Your task to perform on an android device: turn on bluetooth scan Image 0: 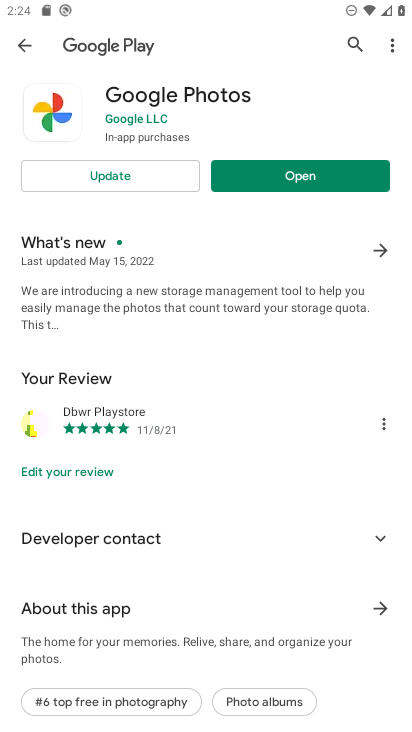
Step 0: press home button
Your task to perform on an android device: turn on bluetooth scan Image 1: 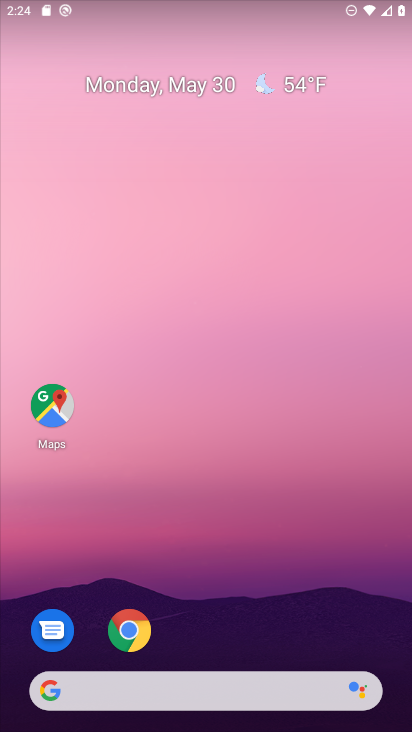
Step 1: drag from (131, 696) to (336, 86)
Your task to perform on an android device: turn on bluetooth scan Image 2: 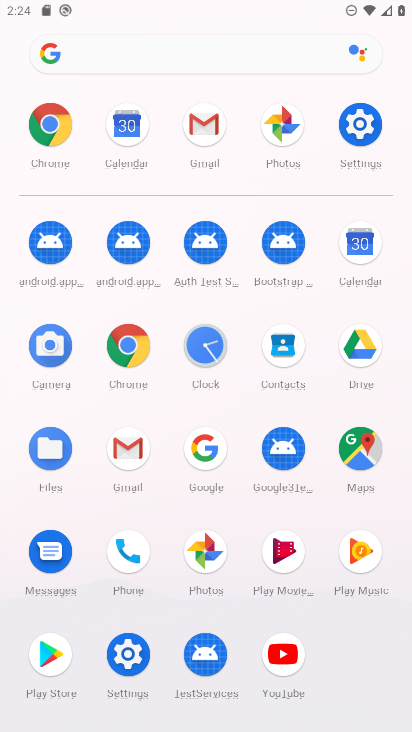
Step 2: click (368, 136)
Your task to perform on an android device: turn on bluetooth scan Image 3: 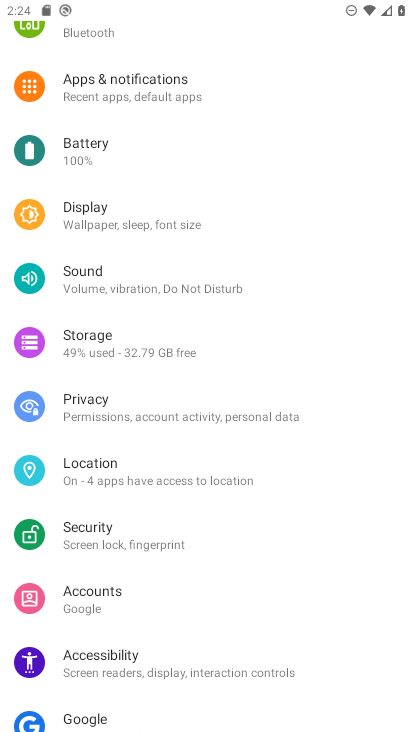
Step 3: click (138, 474)
Your task to perform on an android device: turn on bluetooth scan Image 4: 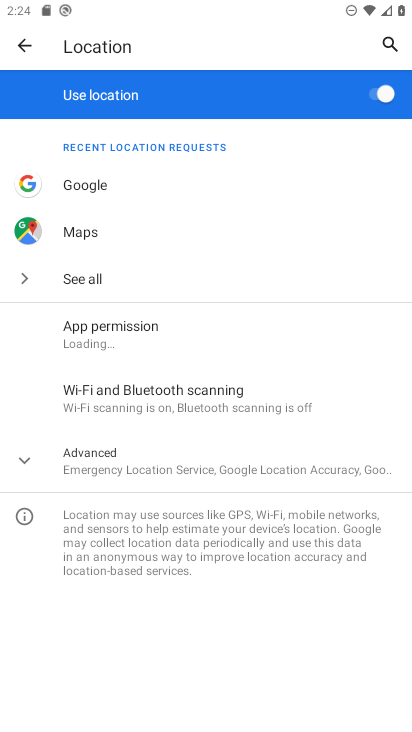
Step 4: click (234, 396)
Your task to perform on an android device: turn on bluetooth scan Image 5: 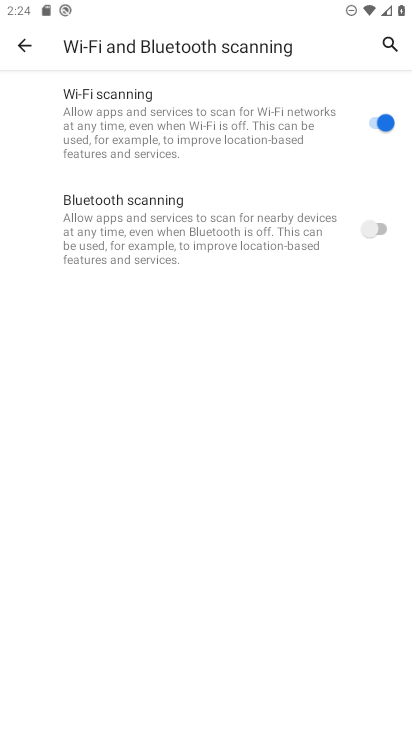
Step 5: click (382, 219)
Your task to perform on an android device: turn on bluetooth scan Image 6: 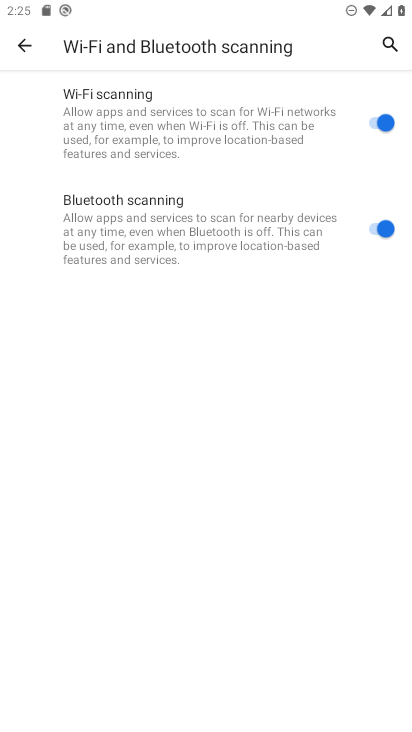
Step 6: task complete